Your task to perform on an android device: Open internet settings Image 0: 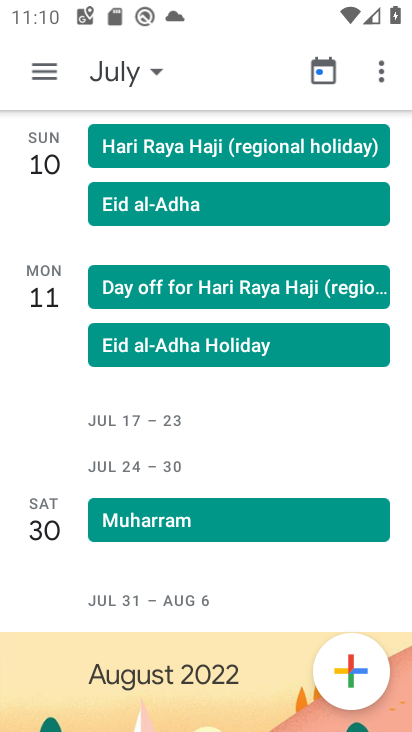
Step 0: press home button
Your task to perform on an android device: Open internet settings Image 1: 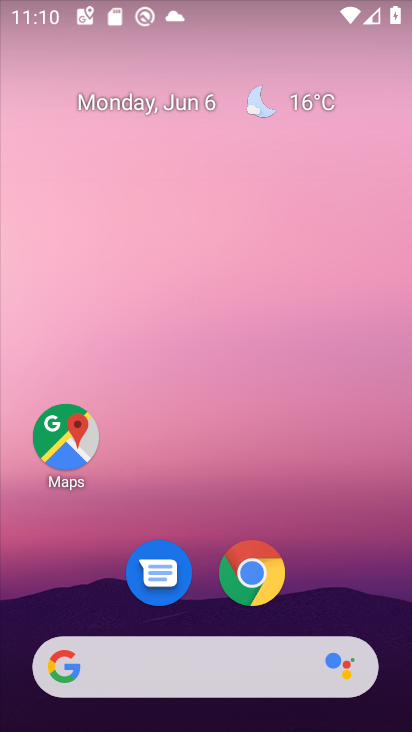
Step 1: drag from (177, 608) to (349, 4)
Your task to perform on an android device: Open internet settings Image 2: 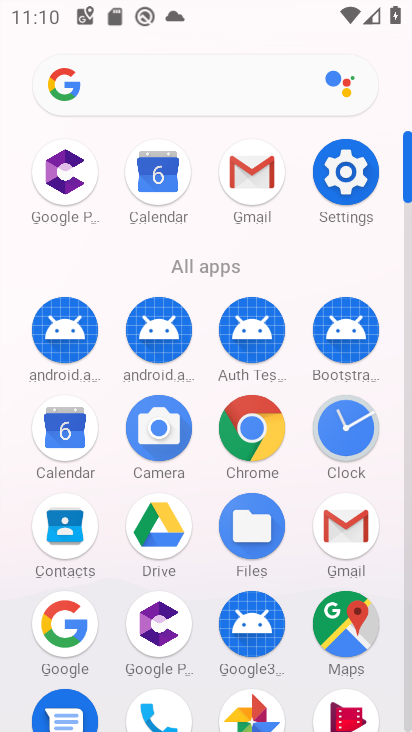
Step 2: click (348, 198)
Your task to perform on an android device: Open internet settings Image 3: 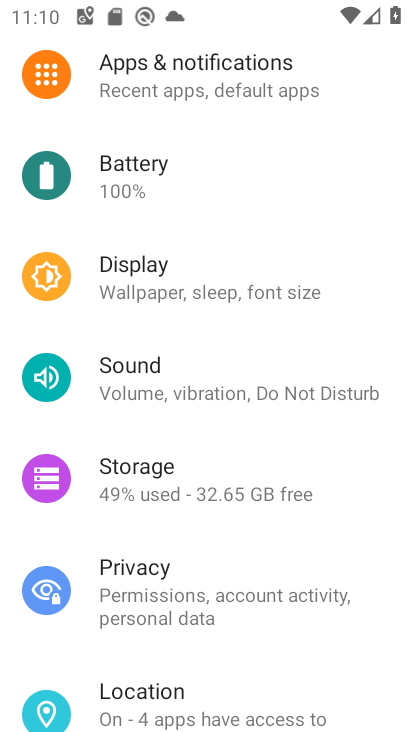
Step 3: drag from (197, 140) to (188, 571)
Your task to perform on an android device: Open internet settings Image 4: 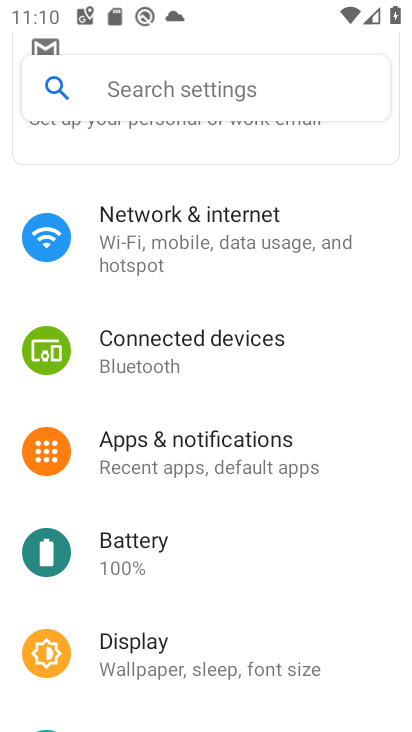
Step 4: click (169, 249)
Your task to perform on an android device: Open internet settings Image 5: 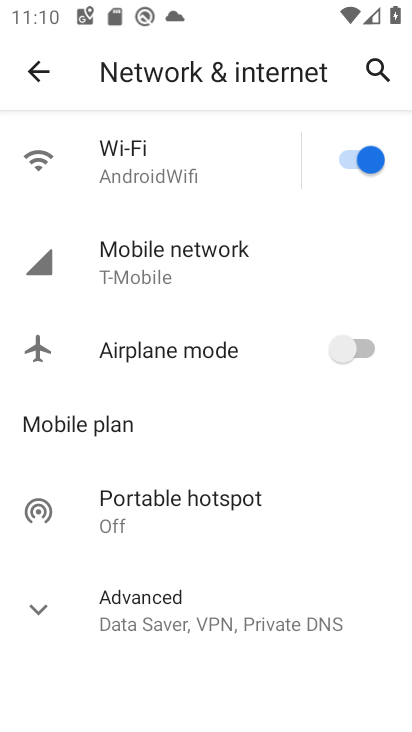
Step 5: task complete